Your task to perform on an android device: check google app version Image 0: 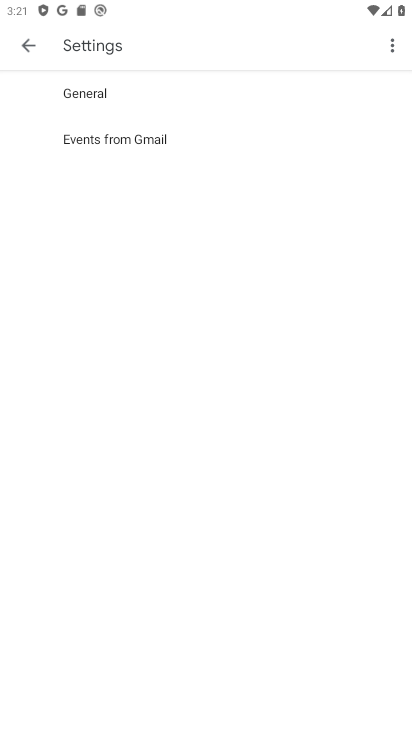
Step 0: press home button
Your task to perform on an android device: check google app version Image 1: 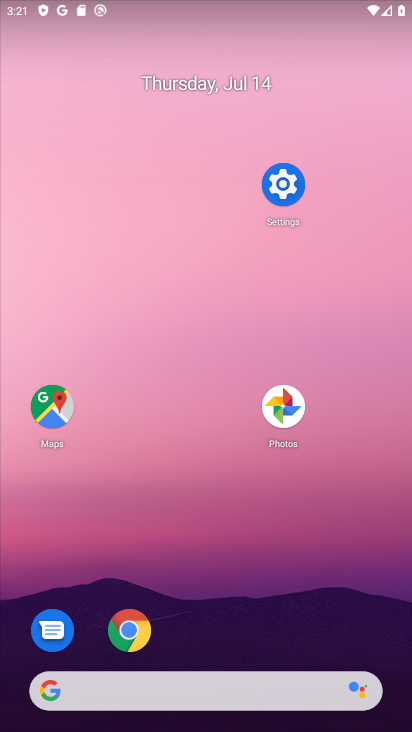
Step 1: drag from (314, 517) to (259, 43)
Your task to perform on an android device: check google app version Image 2: 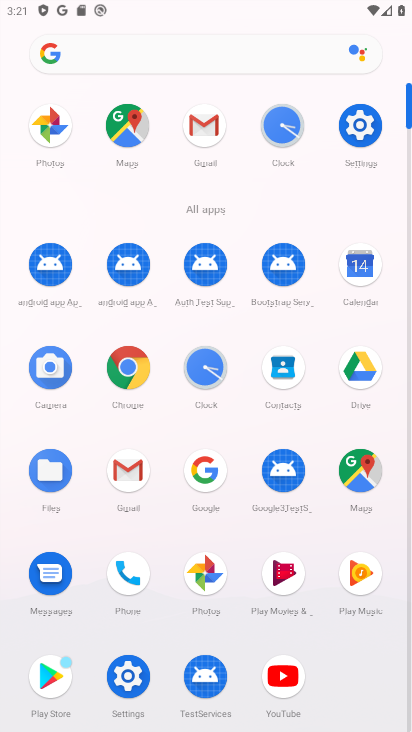
Step 2: drag from (200, 475) to (176, 340)
Your task to perform on an android device: check google app version Image 3: 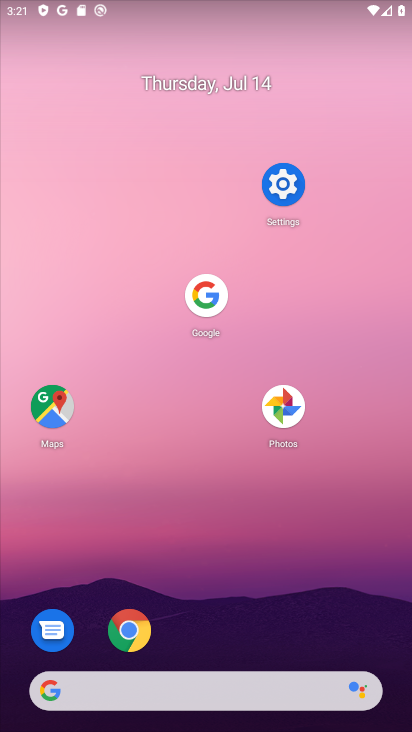
Step 3: click (203, 292)
Your task to perform on an android device: check google app version Image 4: 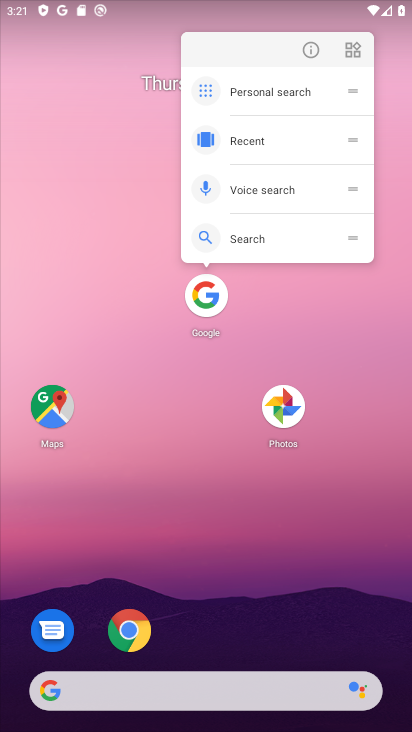
Step 4: click (316, 49)
Your task to perform on an android device: check google app version Image 5: 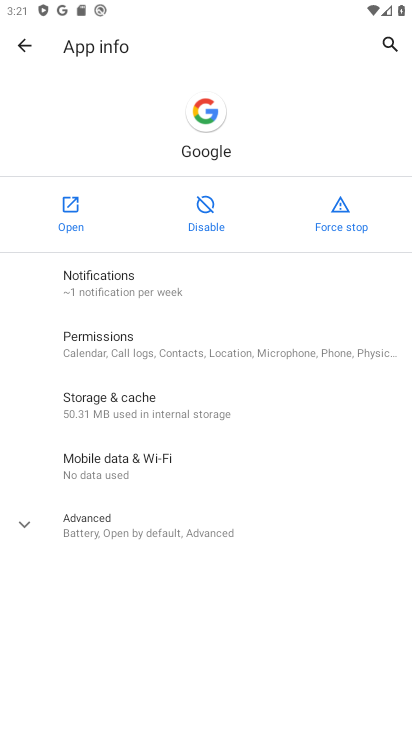
Step 5: click (238, 526)
Your task to perform on an android device: check google app version Image 6: 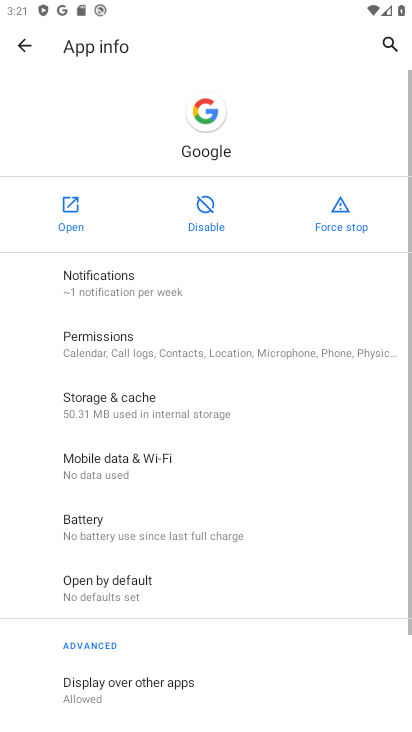
Step 6: task complete